Your task to perform on an android device: What's the weather? Image 0: 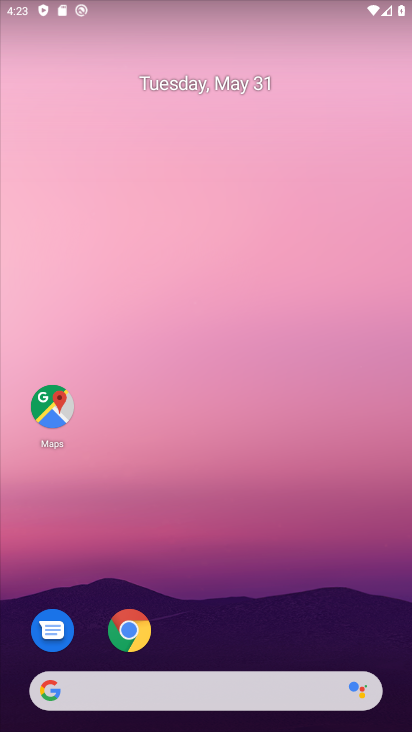
Step 0: drag from (1, 323) to (405, 262)
Your task to perform on an android device: What's the weather? Image 1: 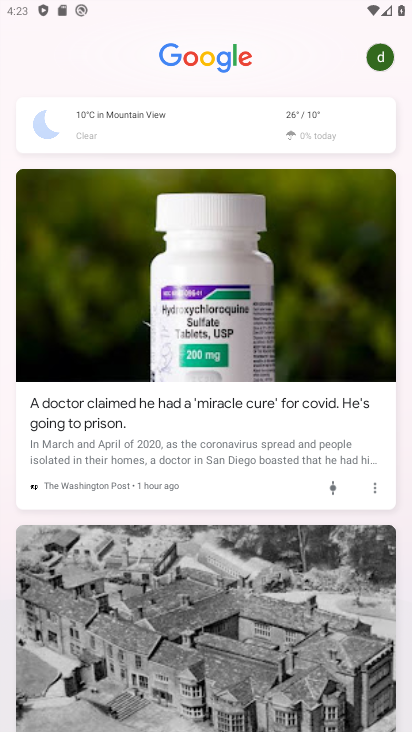
Step 1: click (287, 117)
Your task to perform on an android device: What's the weather? Image 2: 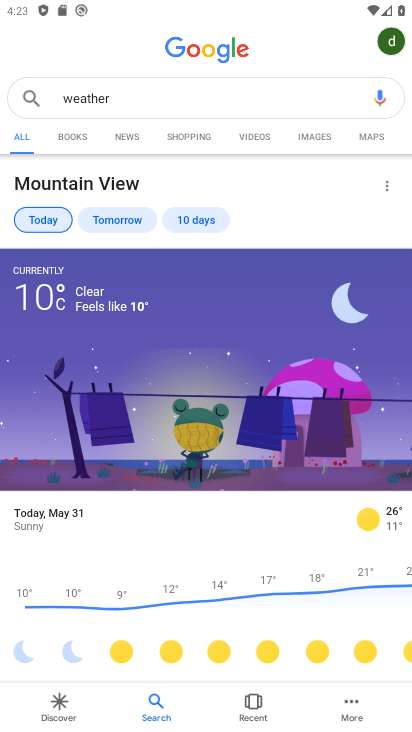
Step 2: task complete